Your task to perform on an android device: Go to location settings Image 0: 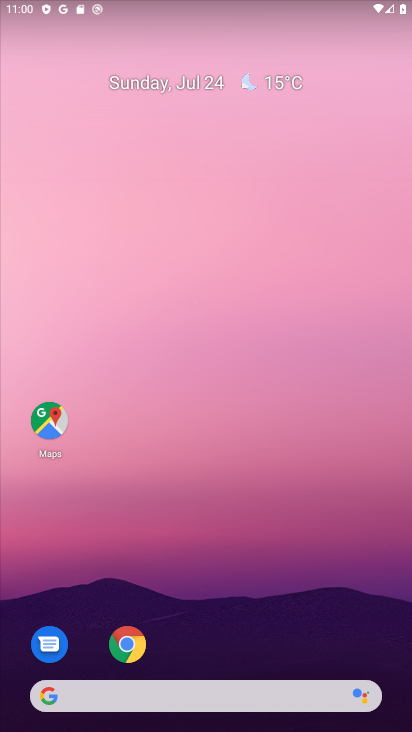
Step 0: drag from (233, 728) to (233, 60)
Your task to perform on an android device: Go to location settings Image 1: 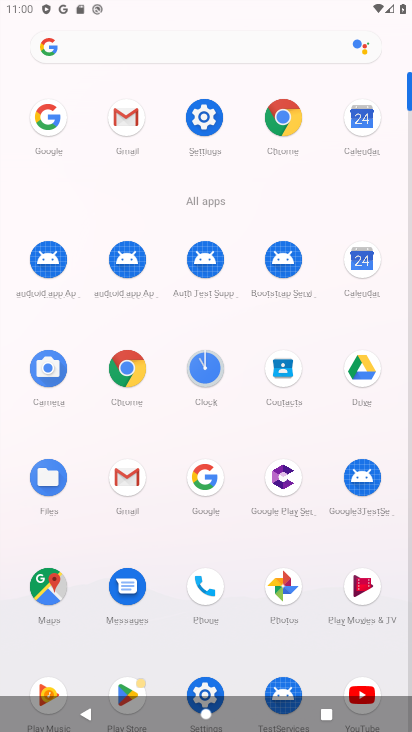
Step 1: click (210, 121)
Your task to perform on an android device: Go to location settings Image 2: 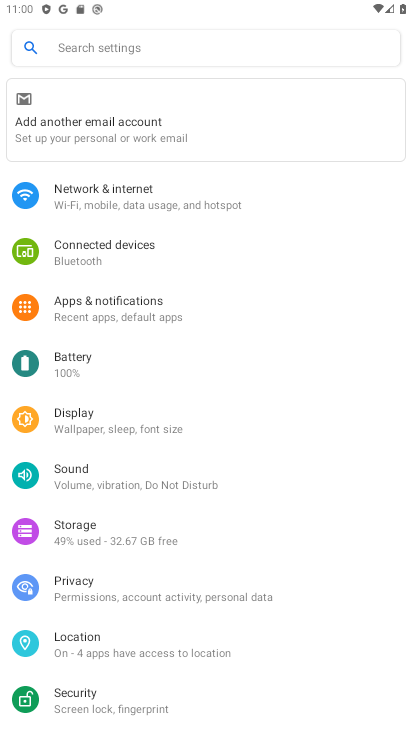
Step 2: click (83, 642)
Your task to perform on an android device: Go to location settings Image 3: 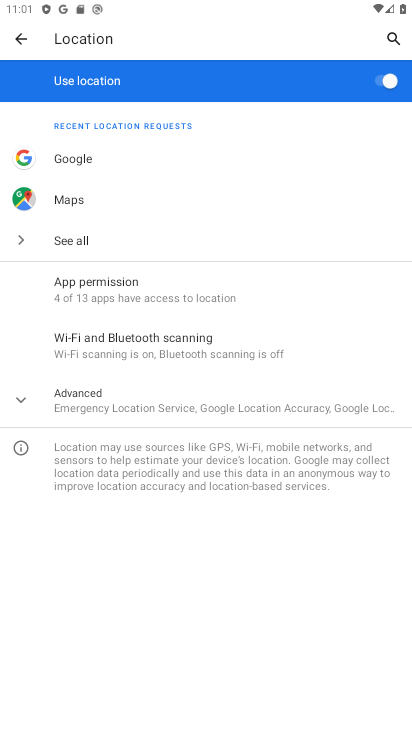
Step 3: task complete